Your task to perform on an android device: Go to calendar. Show me events next week Image 0: 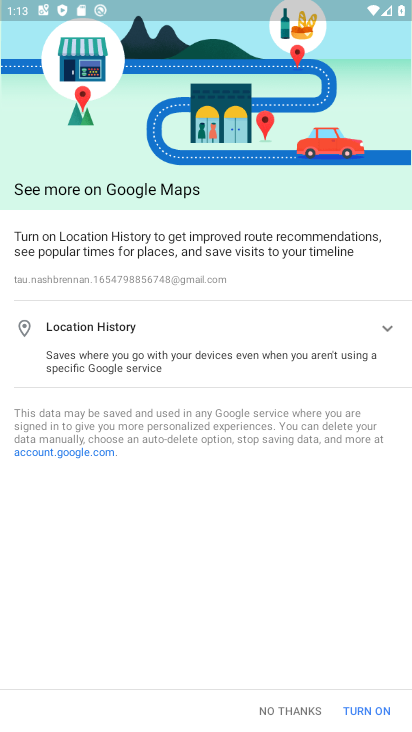
Step 0: press home button
Your task to perform on an android device: Go to calendar. Show me events next week Image 1: 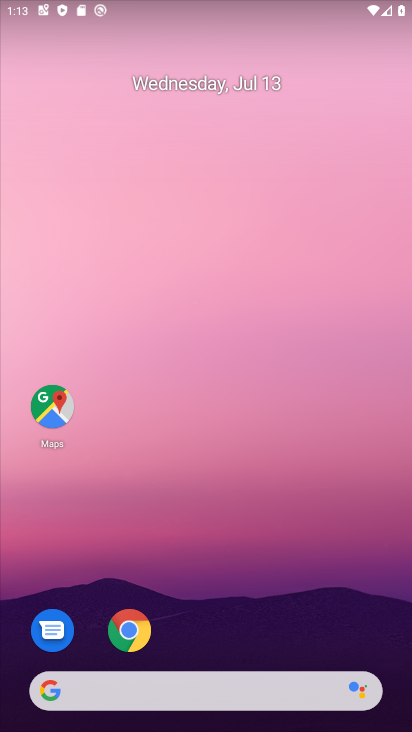
Step 1: drag from (346, 620) to (318, 62)
Your task to perform on an android device: Go to calendar. Show me events next week Image 2: 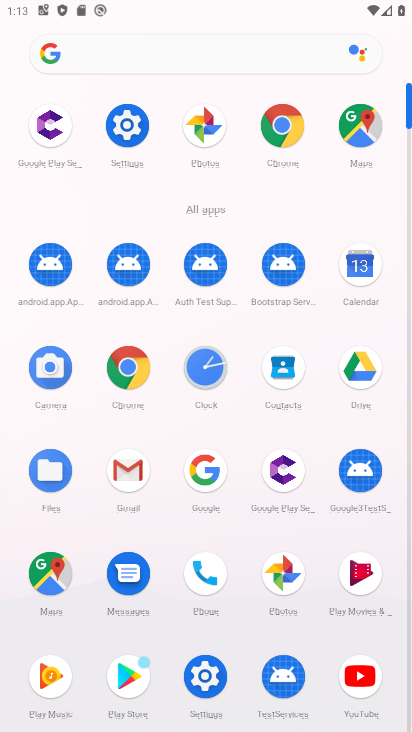
Step 2: click (362, 274)
Your task to perform on an android device: Go to calendar. Show me events next week Image 3: 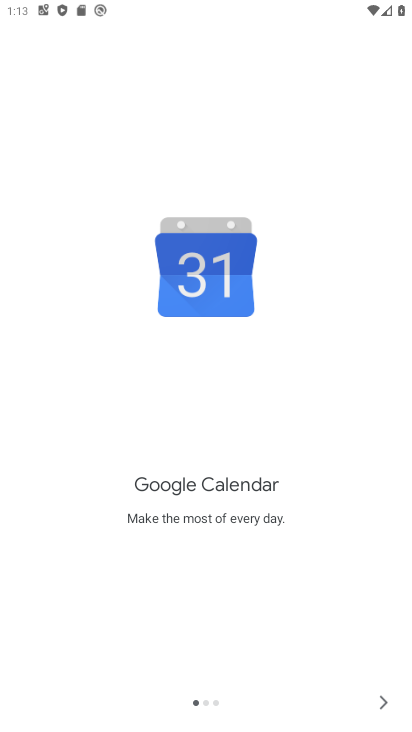
Step 3: click (374, 698)
Your task to perform on an android device: Go to calendar. Show me events next week Image 4: 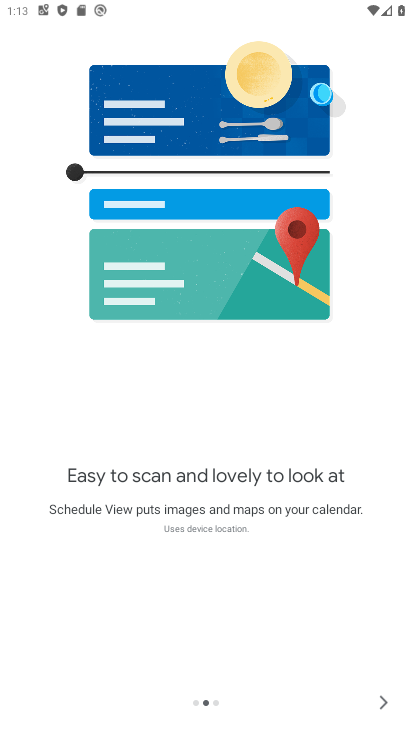
Step 4: click (374, 698)
Your task to perform on an android device: Go to calendar. Show me events next week Image 5: 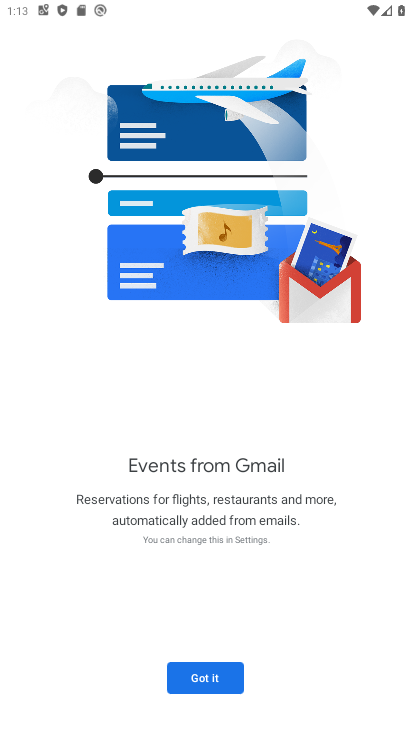
Step 5: click (219, 675)
Your task to perform on an android device: Go to calendar. Show me events next week Image 6: 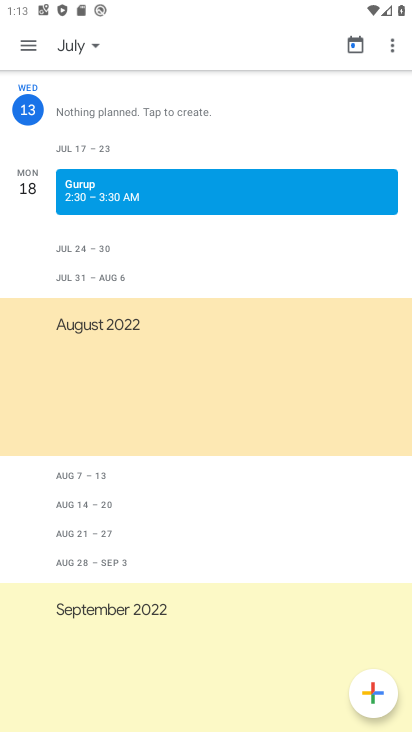
Step 6: click (101, 48)
Your task to perform on an android device: Go to calendar. Show me events next week Image 7: 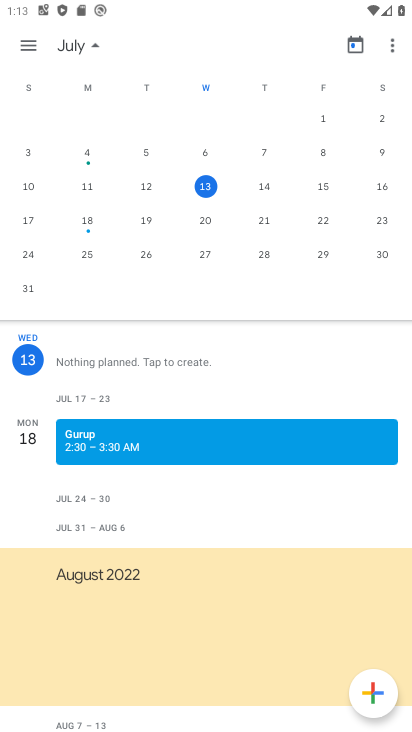
Step 7: click (97, 226)
Your task to perform on an android device: Go to calendar. Show me events next week Image 8: 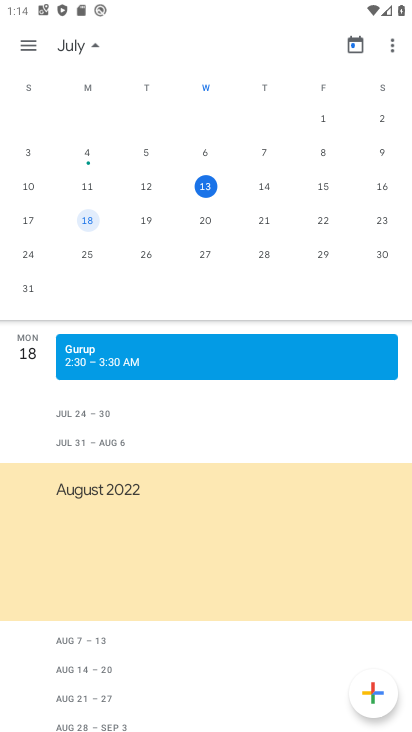
Step 8: task complete